Your task to perform on an android device: open a bookmark in the chrome app Image 0: 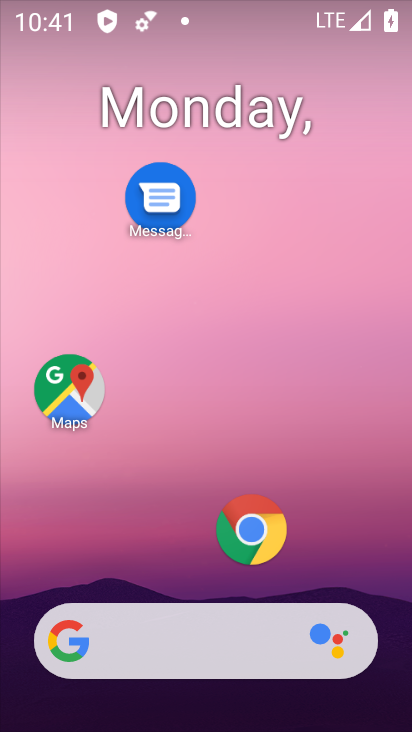
Step 0: drag from (192, 546) to (267, 3)
Your task to perform on an android device: open a bookmark in the chrome app Image 1: 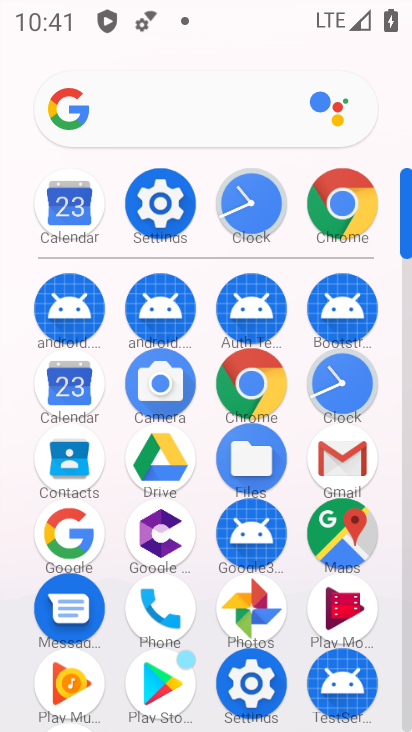
Step 1: click (259, 402)
Your task to perform on an android device: open a bookmark in the chrome app Image 2: 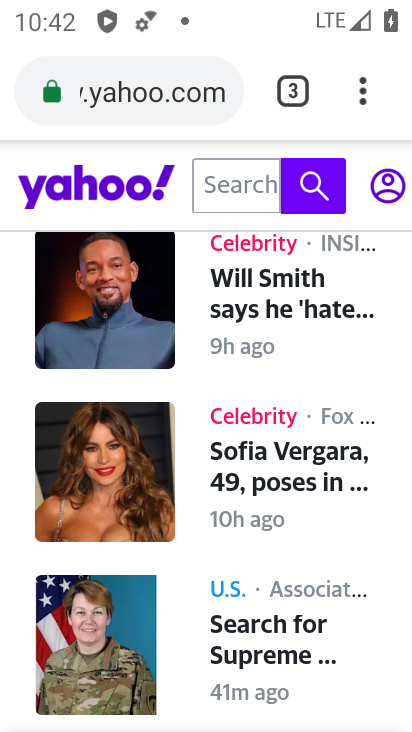
Step 2: click (358, 86)
Your task to perform on an android device: open a bookmark in the chrome app Image 3: 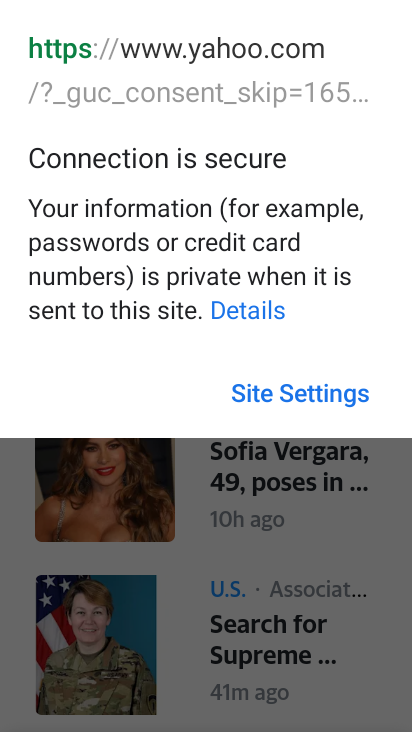
Step 3: click (284, 557)
Your task to perform on an android device: open a bookmark in the chrome app Image 4: 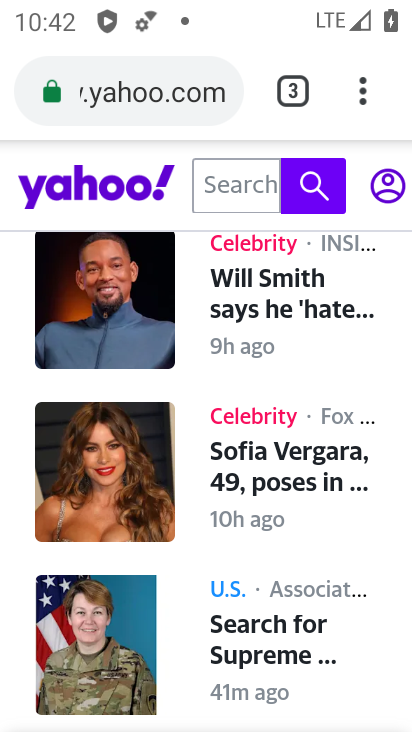
Step 4: click (360, 97)
Your task to perform on an android device: open a bookmark in the chrome app Image 5: 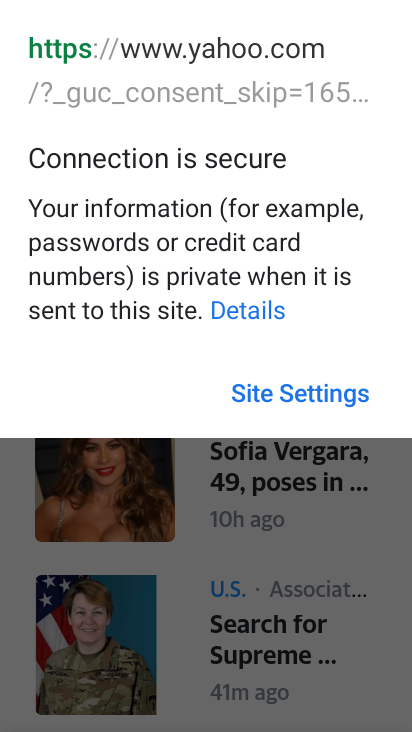
Step 5: click (297, 515)
Your task to perform on an android device: open a bookmark in the chrome app Image 6: 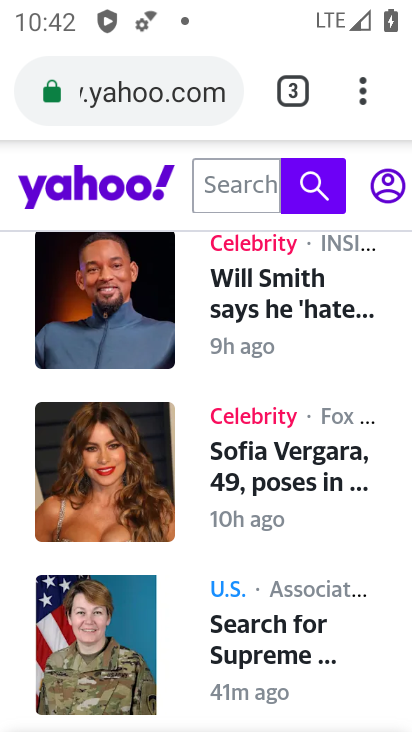
Step 6: task complete